Your task to perform on an android device: change the clock display to digital Image 0: 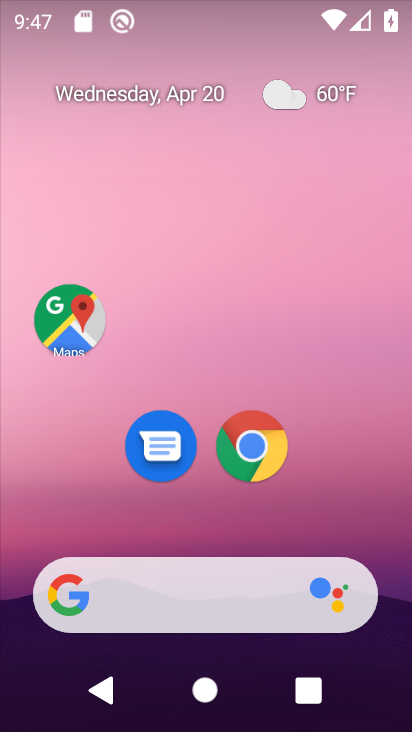
Step 0: drag from (307, 506) to (350, 212)
Your task to perform on an android device: change the clock display to digital Image 1: 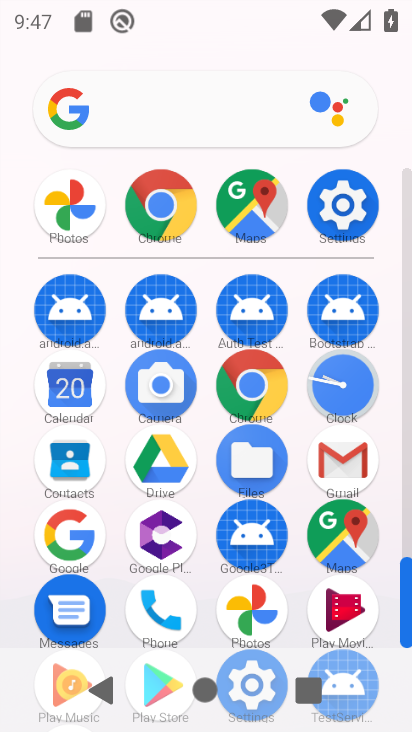
Step 1: click (327, 386)
Your task to perform on an android device: change the clock display to digital Image 2: 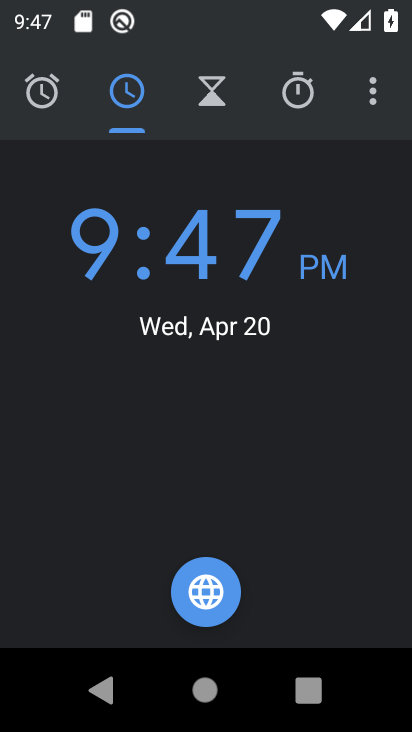
Step 2: click (381, 90)
Your task to perform on an android device: change the clock display to digital Image 3: 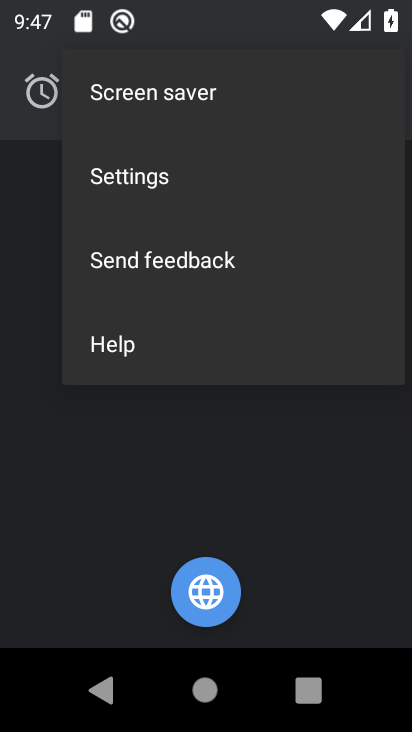
Step 3: click (162, 176)
Your task to perform on an android device: change the clock display to digital Image 4: 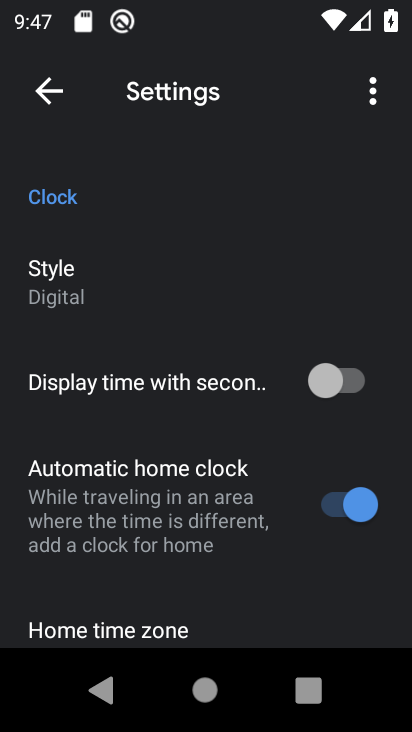
Step 4: task complete